Your task to perform on an android device: turn notification dots on Image 0: 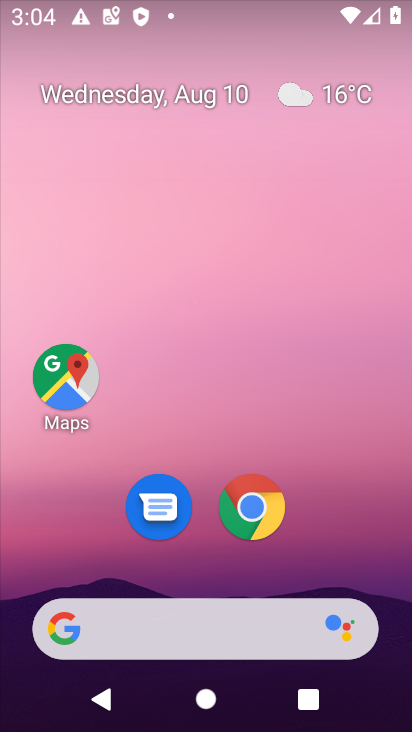
Step 0: drag from (351, 507) to (254, 4)
Your task to perform on an android device: turn notification dots on Image 1: 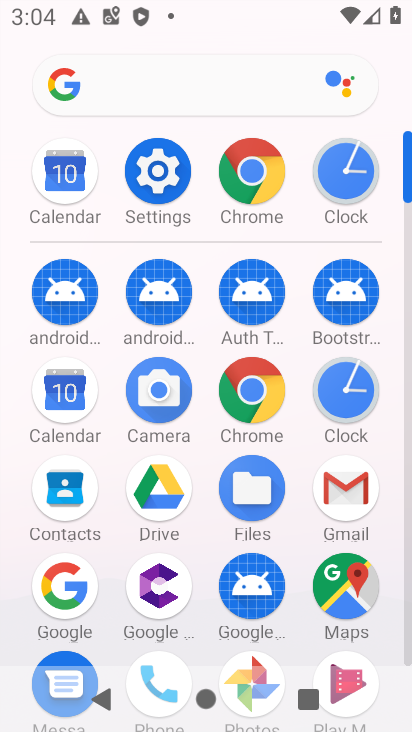
Step 1: click (164, 174)
Your task to perform on an android device: turn notification dots on Image 2: 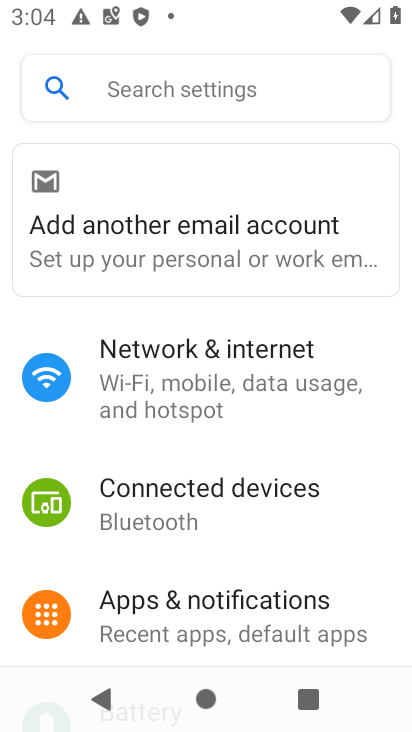
Step 2: click (281, 619)
Your task to perform on an android device: turn notification dots on Image 3: 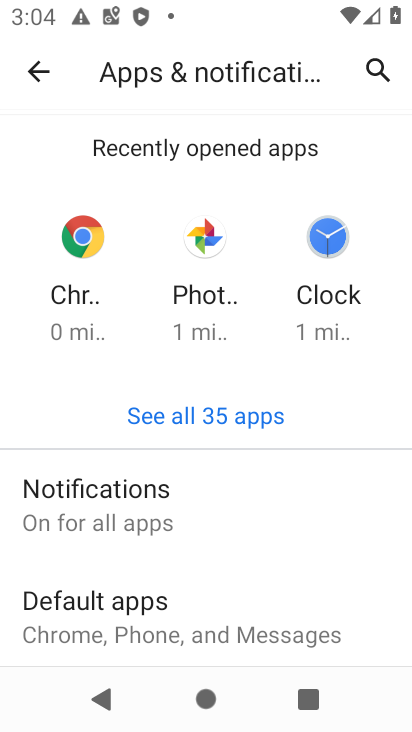
Step 3: click (138, 493)
Your task to perform on an android device: turn notification dots on Image 4: 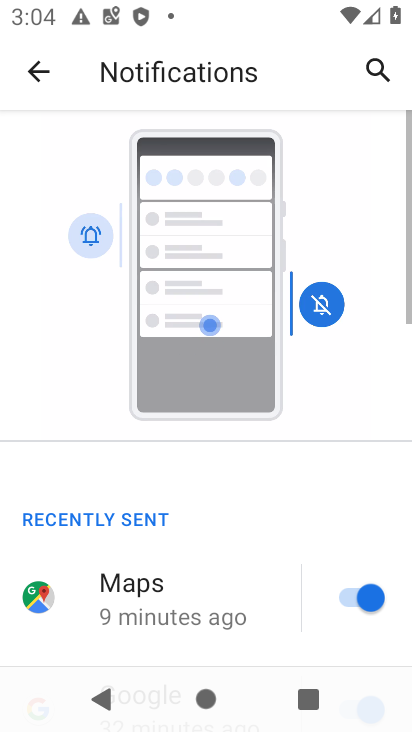
Step 4: drag from (252, 539) to (273, 79)
Your task to perform on an android device: turn notification dots on Image 5: 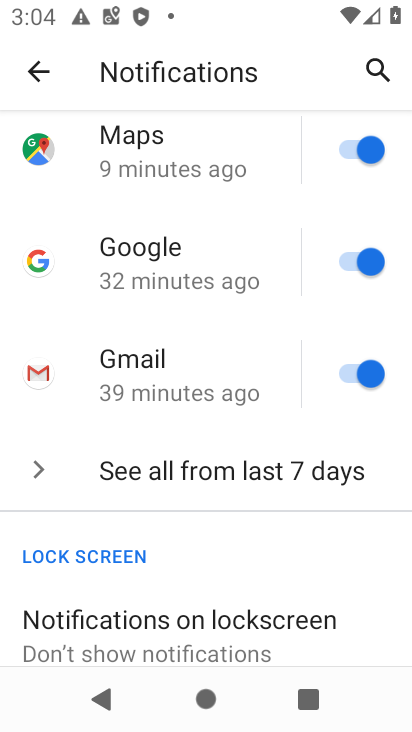
Step 5: drag from (208, 579) to (238, 199)
Your task to perform on an android device: turn notification dots on Image 6: 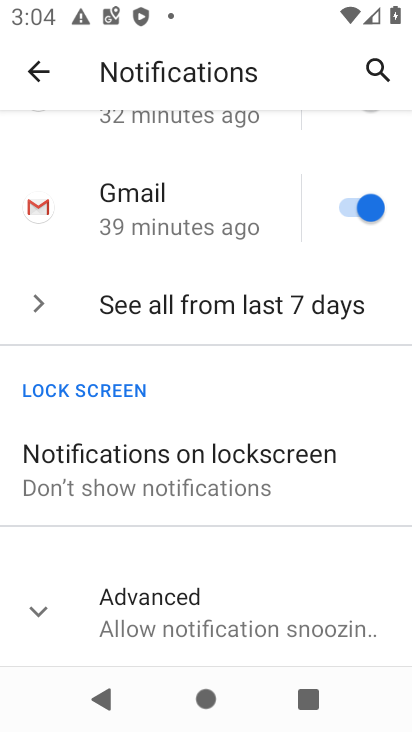
Step 6: click (185, 601)
Your task to perform on an android device: turn notification dots on Image 7: 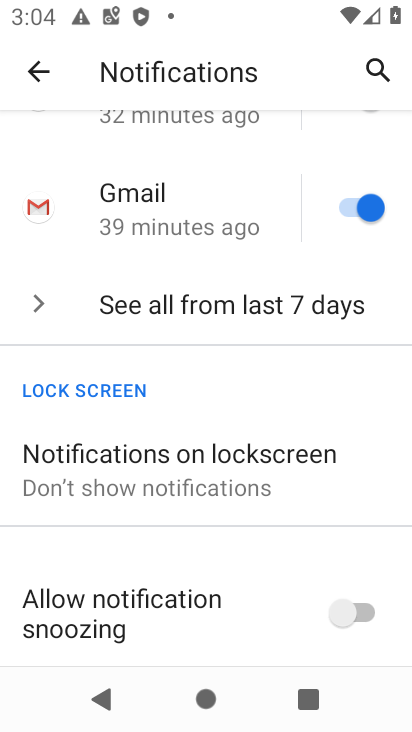
Step 7: task complete